Your task to perform on an android device: uninstall "Google Calendar" Image 0: 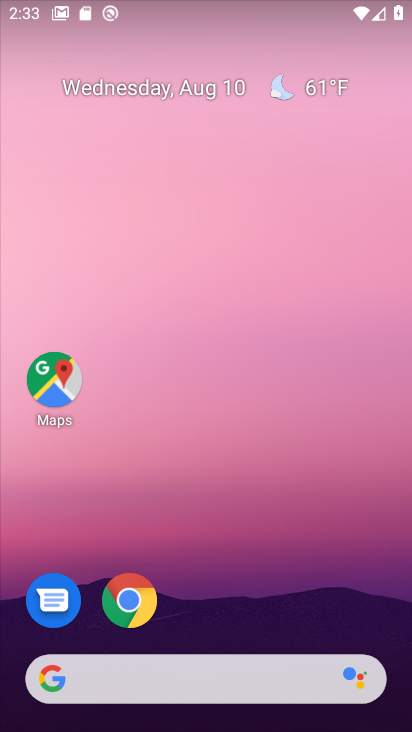
Step 0: drag from (201, 501) to (210, 88)
Your task to perform on an android device: uninstall "Google Calendar" Image 1: 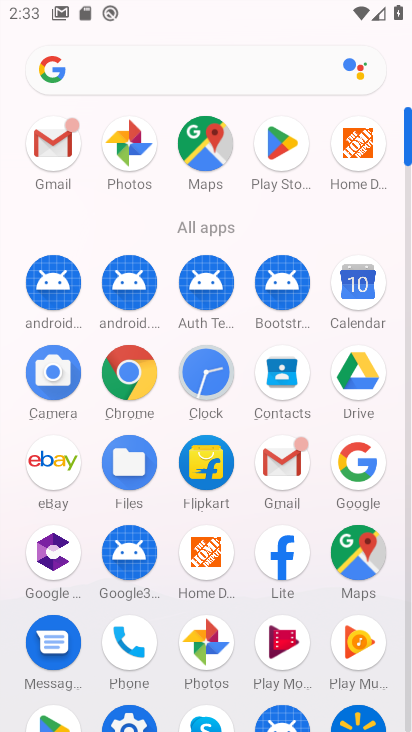
Step 1: click (366, 288)
Your task to perform on an android device: uninstall "Google Calendar" Image 2: 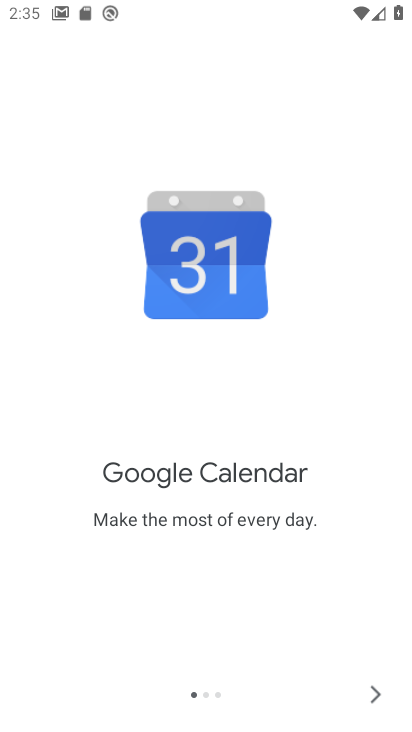
Step 2: click (364, 690)
Your task to perform on an android device: uninstall "Google Calendar" Image 3: 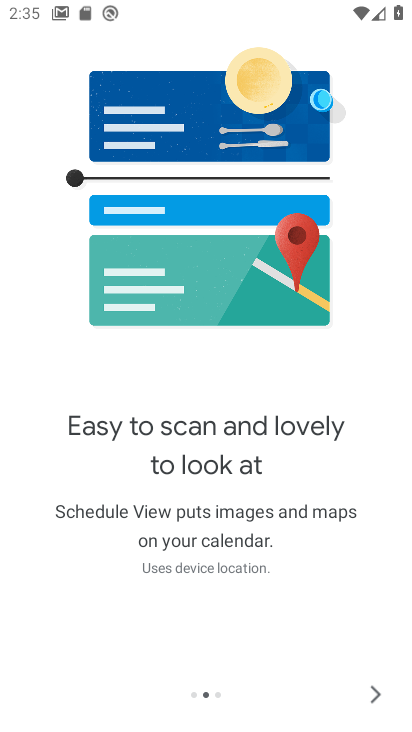
Step 3: click (372, 696)
Your task to perform on an android device: uninstall "Google Calendar" Image 4: 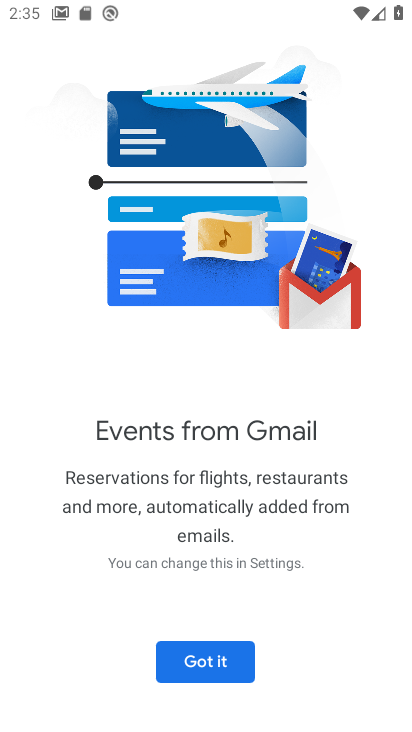
Step 4: click (372, 694)
Your task to perform on an android device: uninstall "Google Calendar" Image 5: 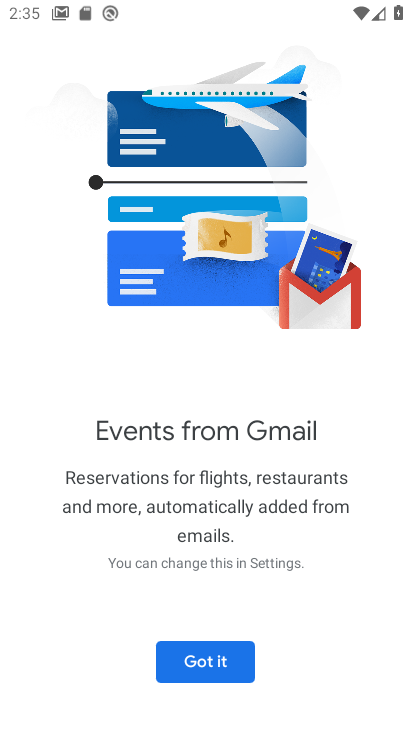
Step 5: click (219, 659)
Your task to perform on an android device: uninstall "Google Calendar" Image 6: 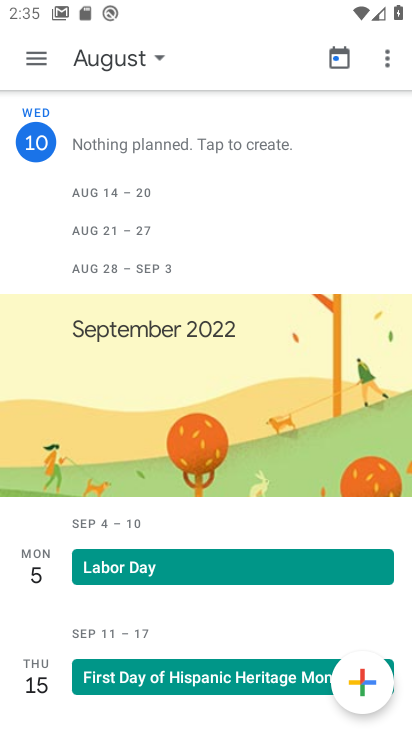
Step 6: press back button
Your task to perform on an android device: uninstall "Google Calendar" Image 7: 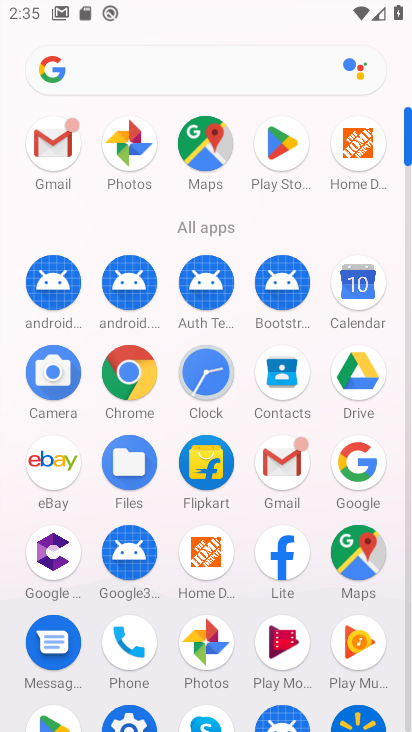
Step 7: click (343, 297)
Your task to perform on an android device: uninstall "Google Calendar" Image 8: 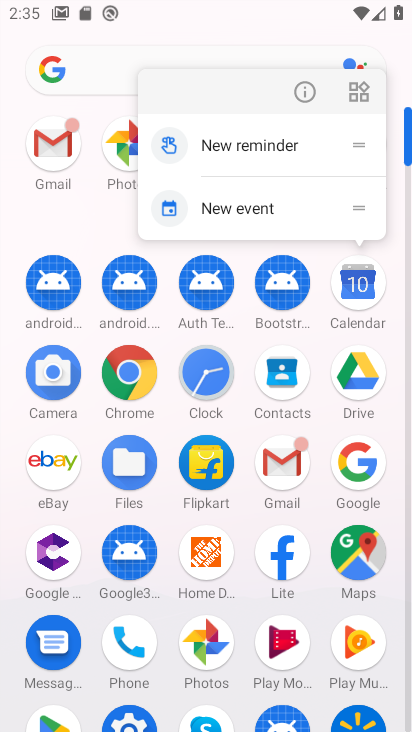
Step 8: click (301, 91)
Your task to perform on an android device: uninstall "Google Calendar" Image 9: 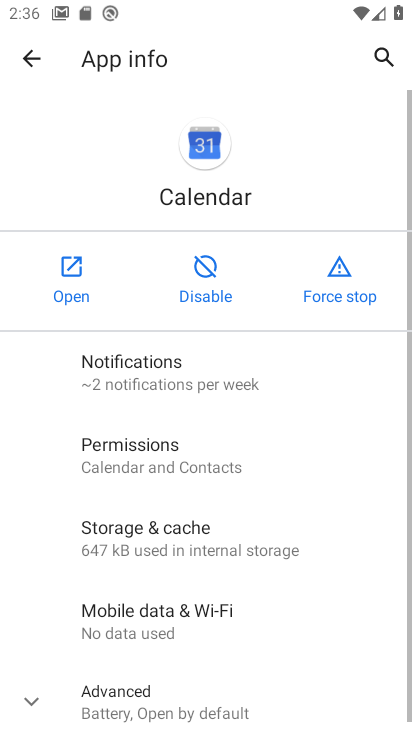
Step 9: task complete